Your task to perform on an android device: open app "HBO Max: Stream TV & Movies" (install if not already installed) Image 0: 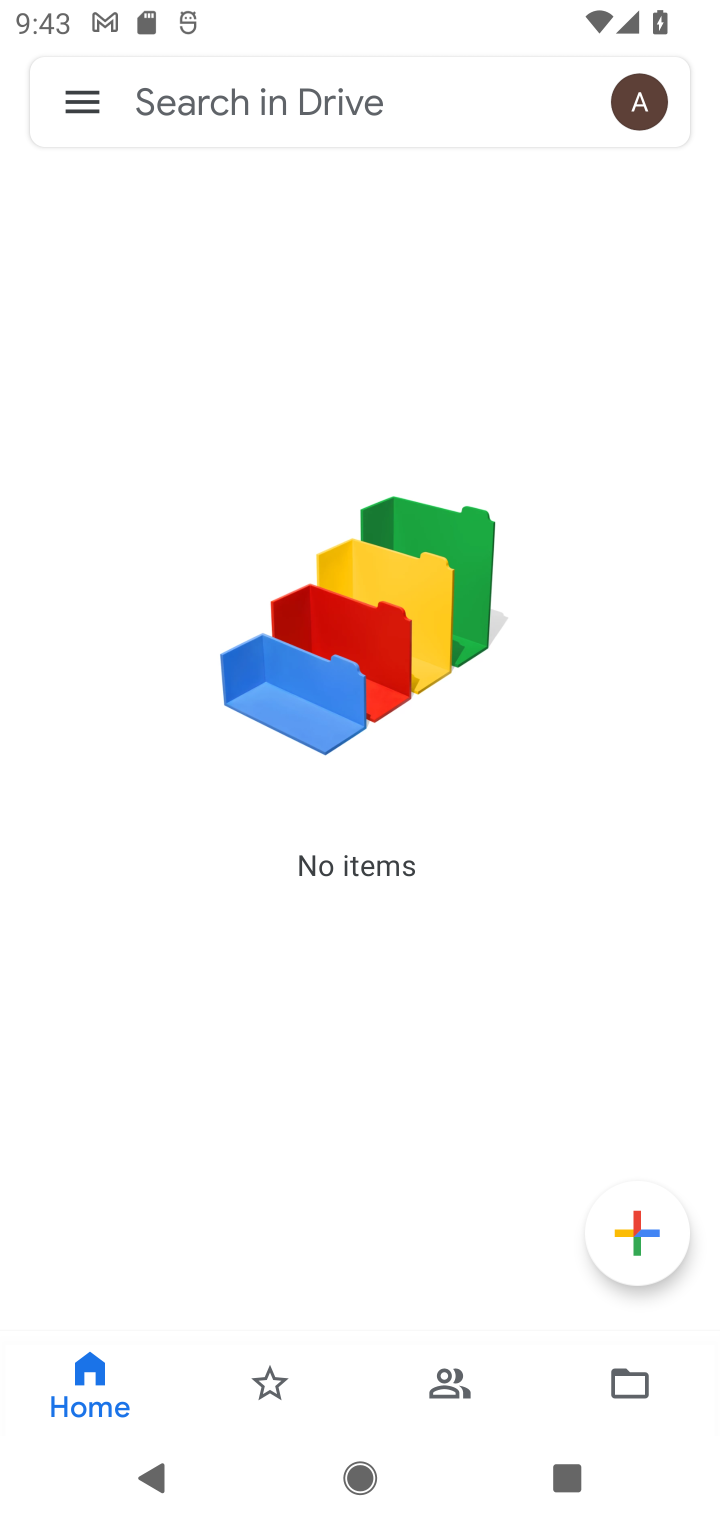
Step 0: press home button
Your task to perform on an android device: open app "HBO Max: Stream TV & Movies" (install if not already installed) Image 1: 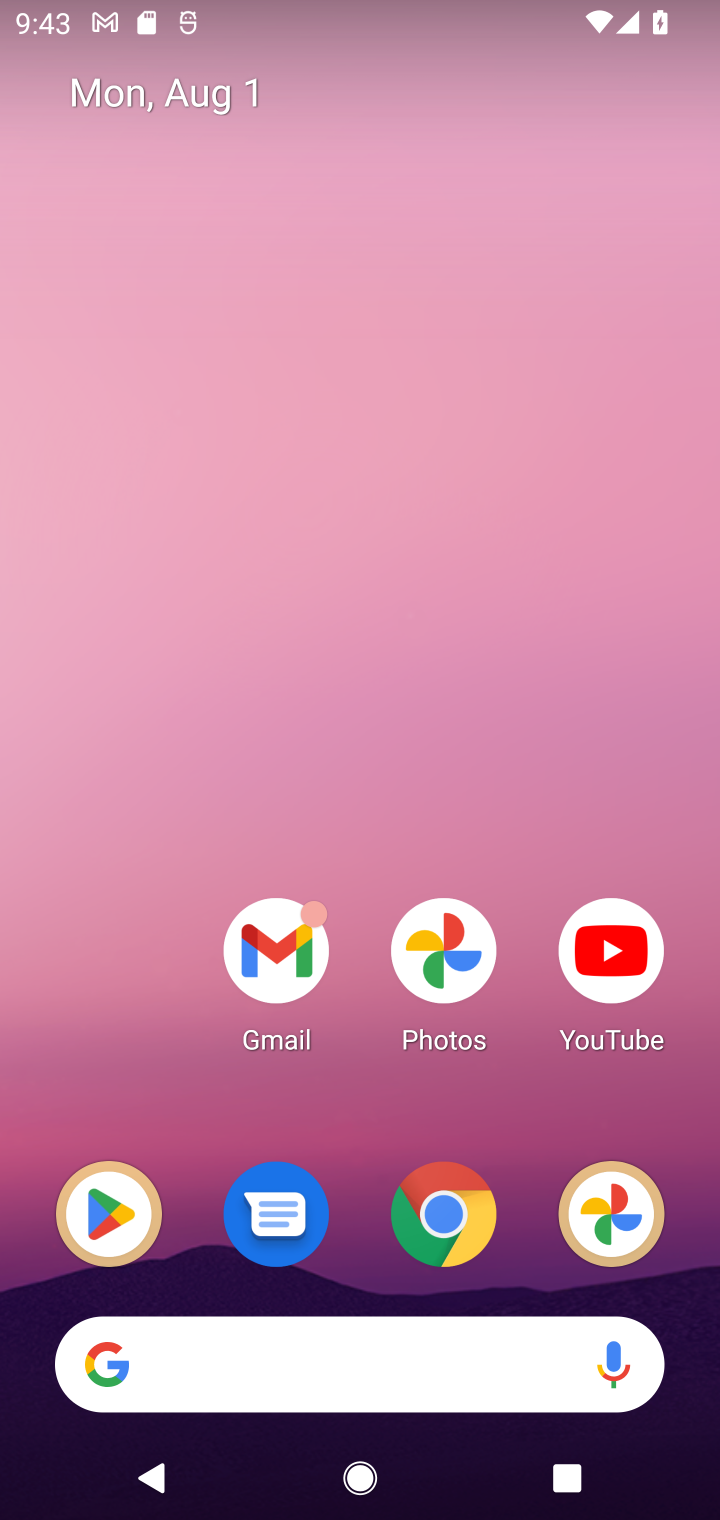
Step 1: click (114, 1207)
Your task to perform on an android device: open app "HBO Max: Stream TV & Movies" (install if not already installed) Image 2: 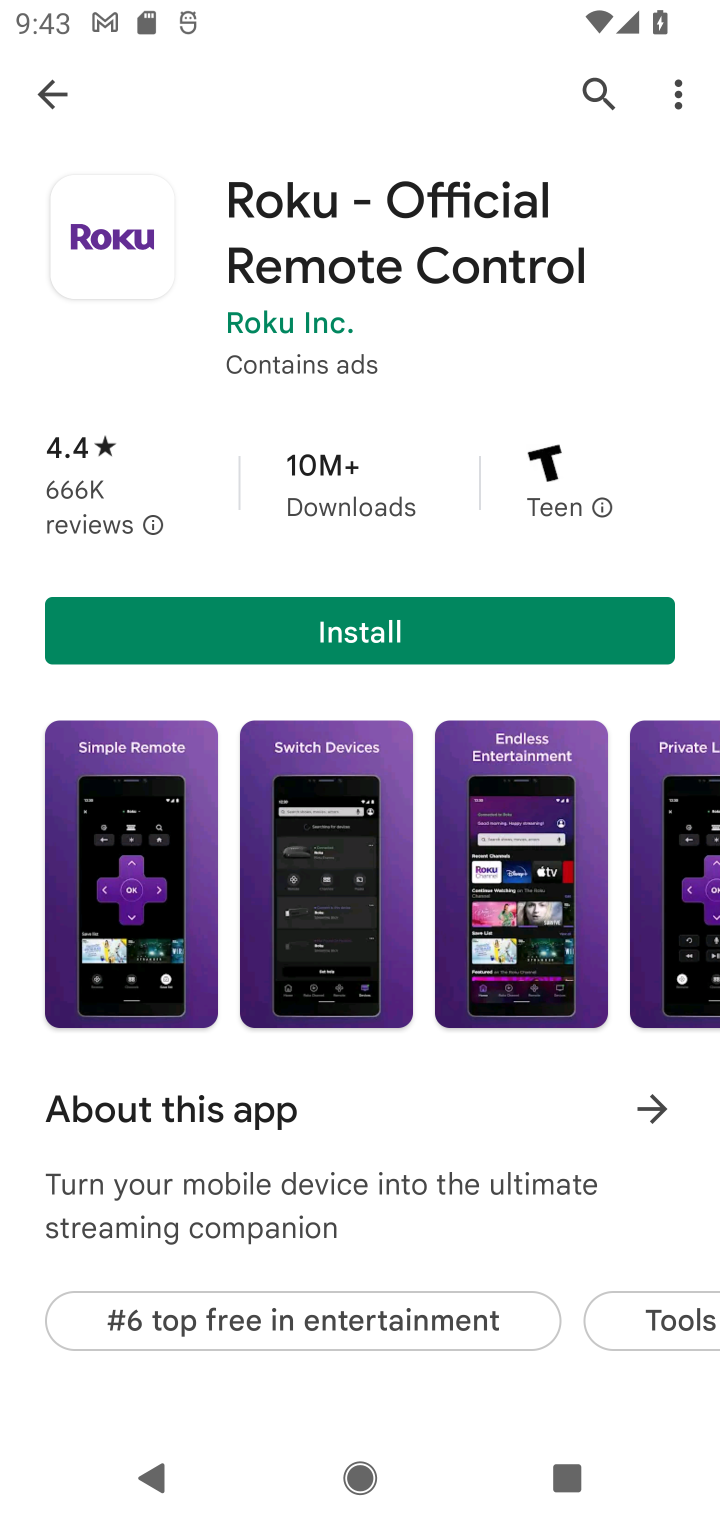
Step 2: click (588, 90)
Your task to perform on an android device: open app "HBO Max: Stream TV & Movies" (install if not already installed) Image 3: 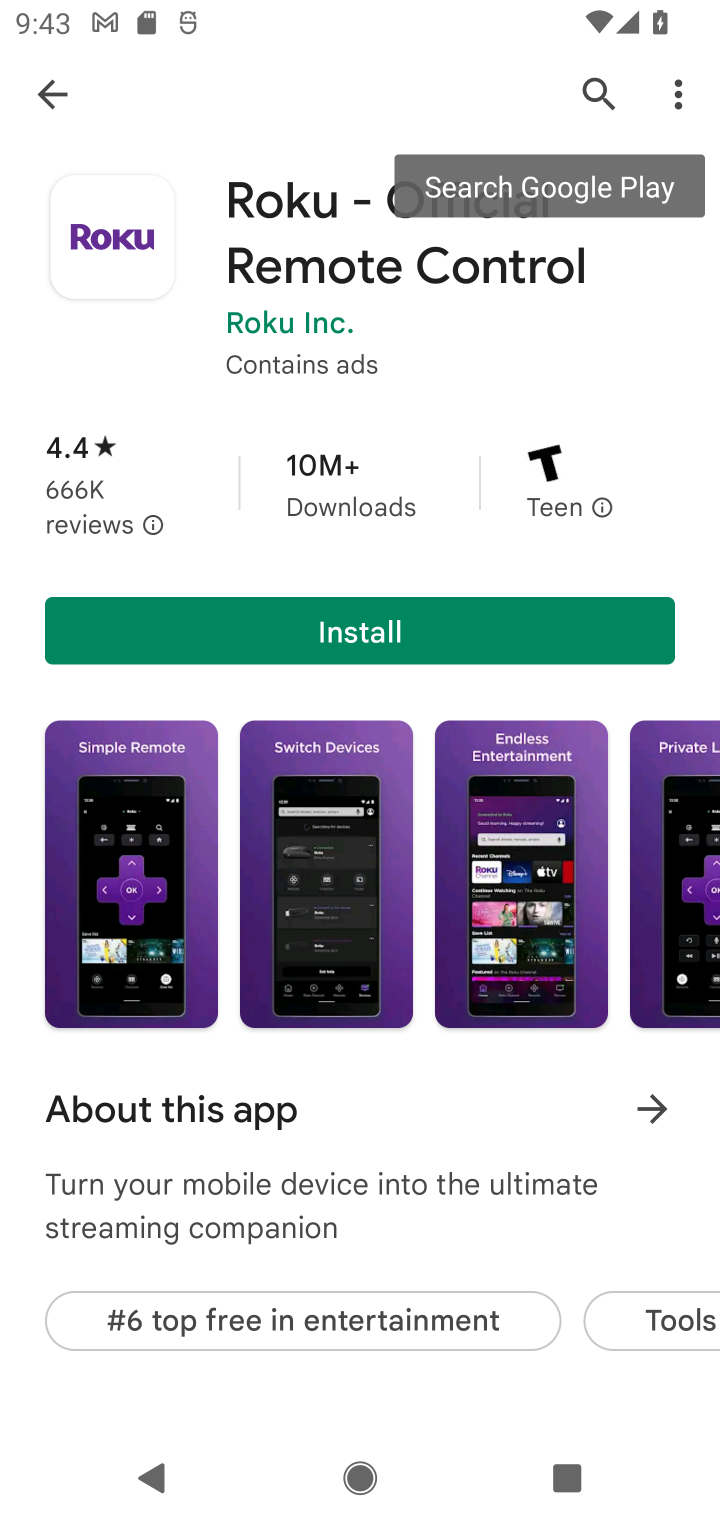
Step 3: click (588, 86)
Your task to perform on an android device: open app "HBO Max: Stream TV & Movies" (install if not already installed) Image 4: 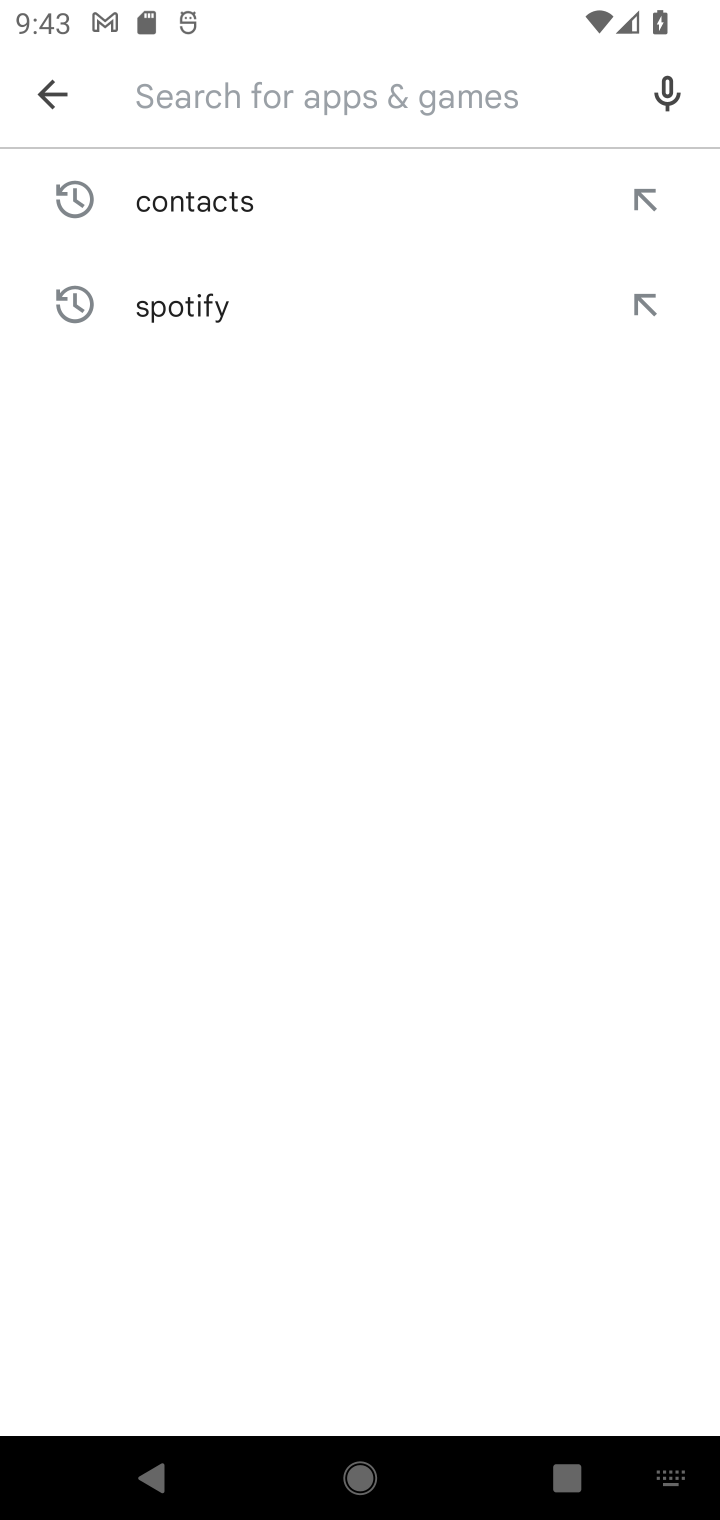
Step 4: type "HBO Max: Stream TV & Movies"
Your task to perform on an android device: open app "HBO Max: Stream TV & Movies" (install if not already installed) Image 5: 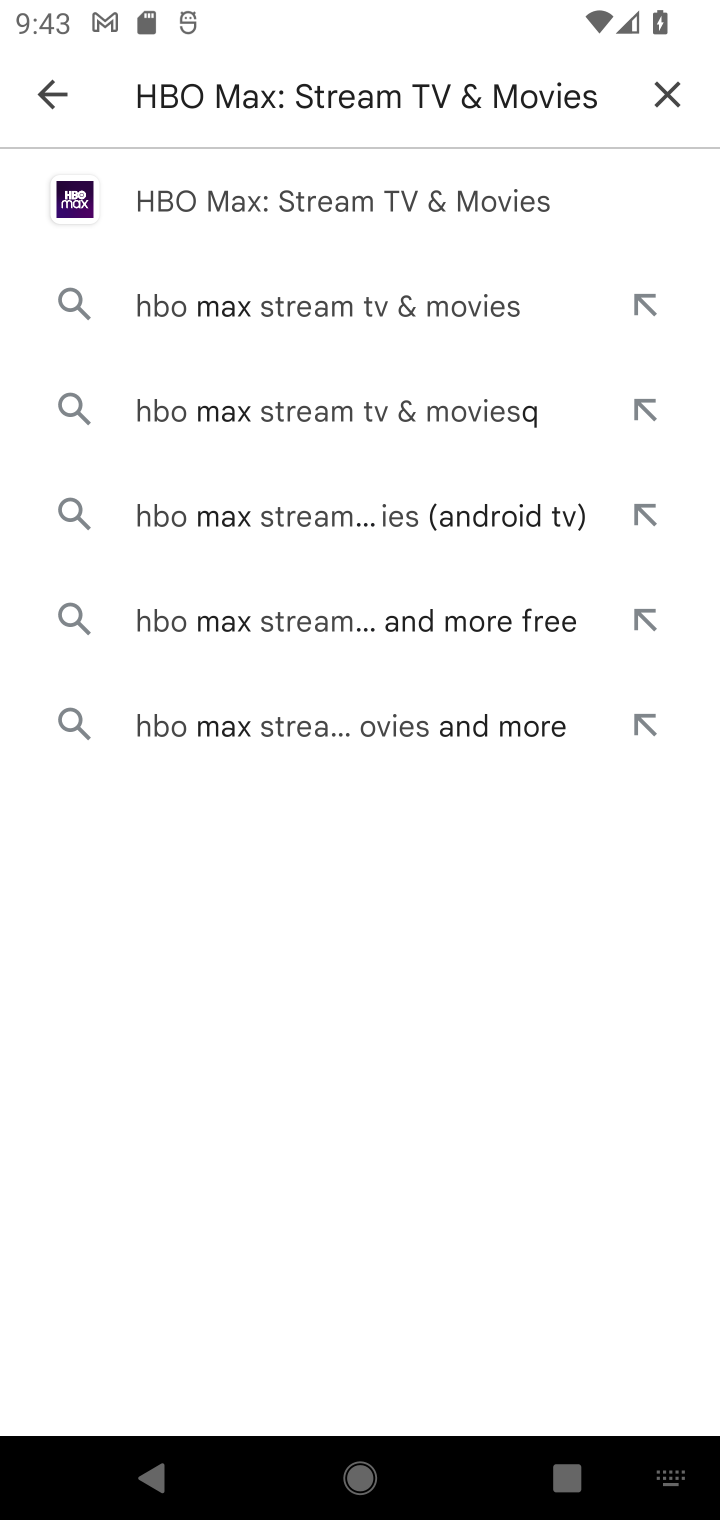
Step 5: click (245, 199)
Your task to perform on an android device: open app "HBO Max: Stream TV & Movies" (install if not already installed) Image 6: 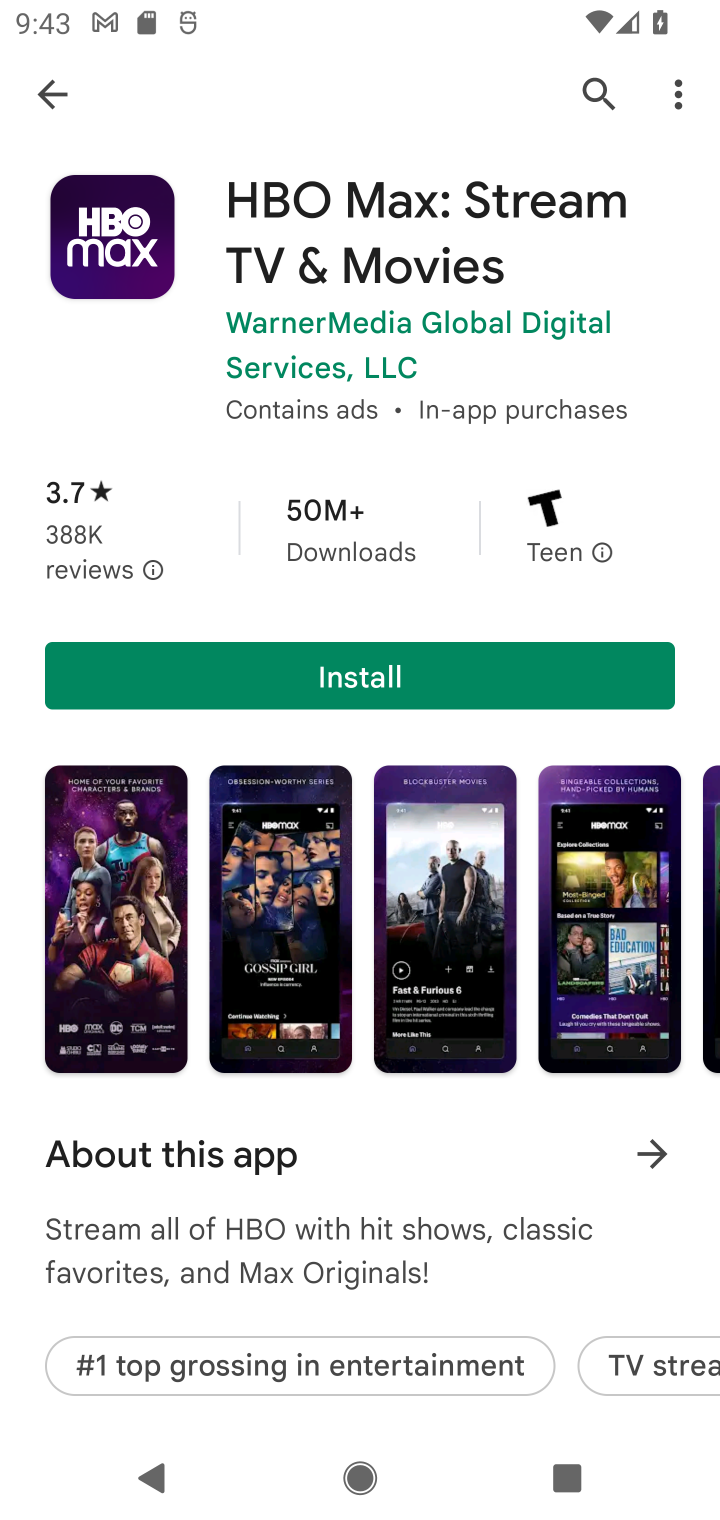
Step 6: click (379, 676)
Your task to perform on an android device: open app "HBO Max: Stream TV & Movies" (install if not already installed) Image 7: 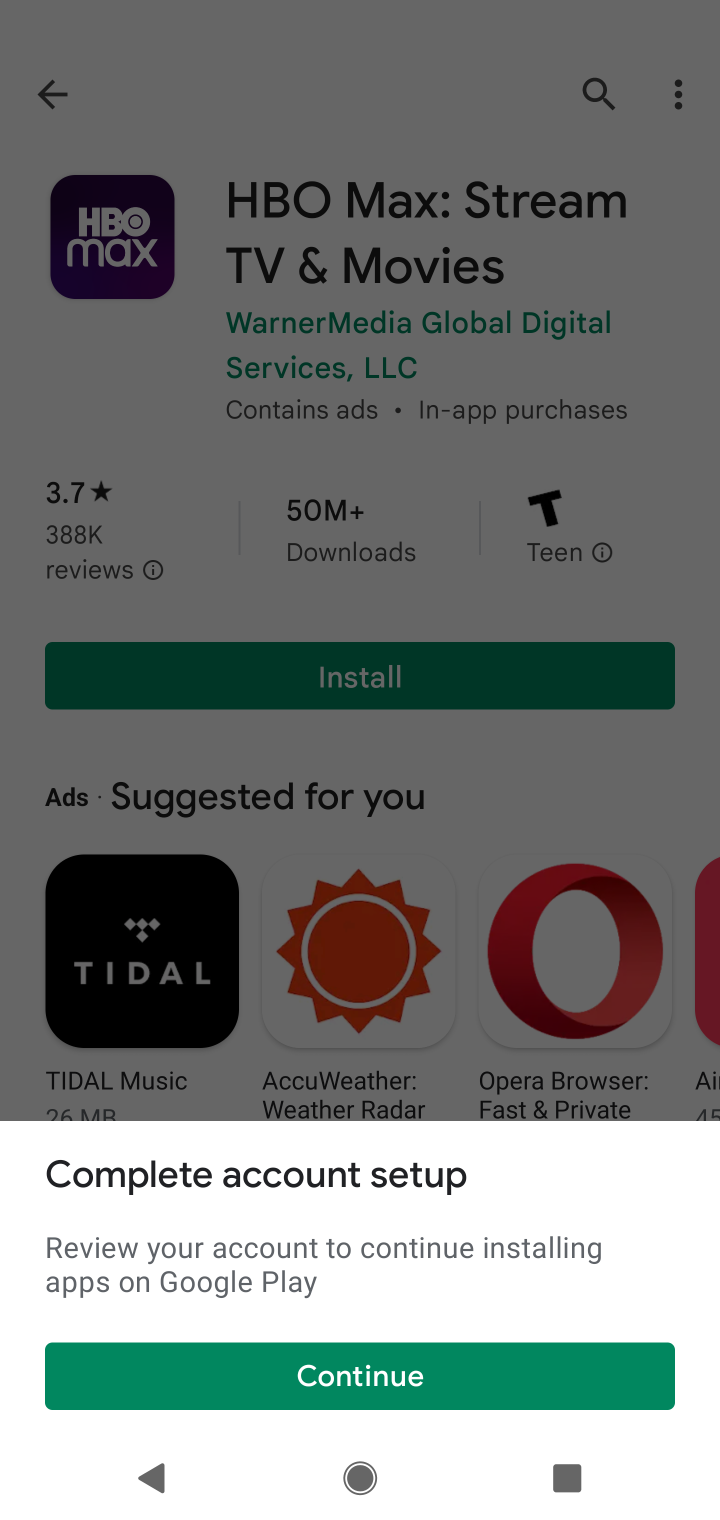
Step 7: click (435, 1360)
Your task to perform on an android device: open app "HBO Max: Stream TV & Movies" (install if not already installed) Image 8: 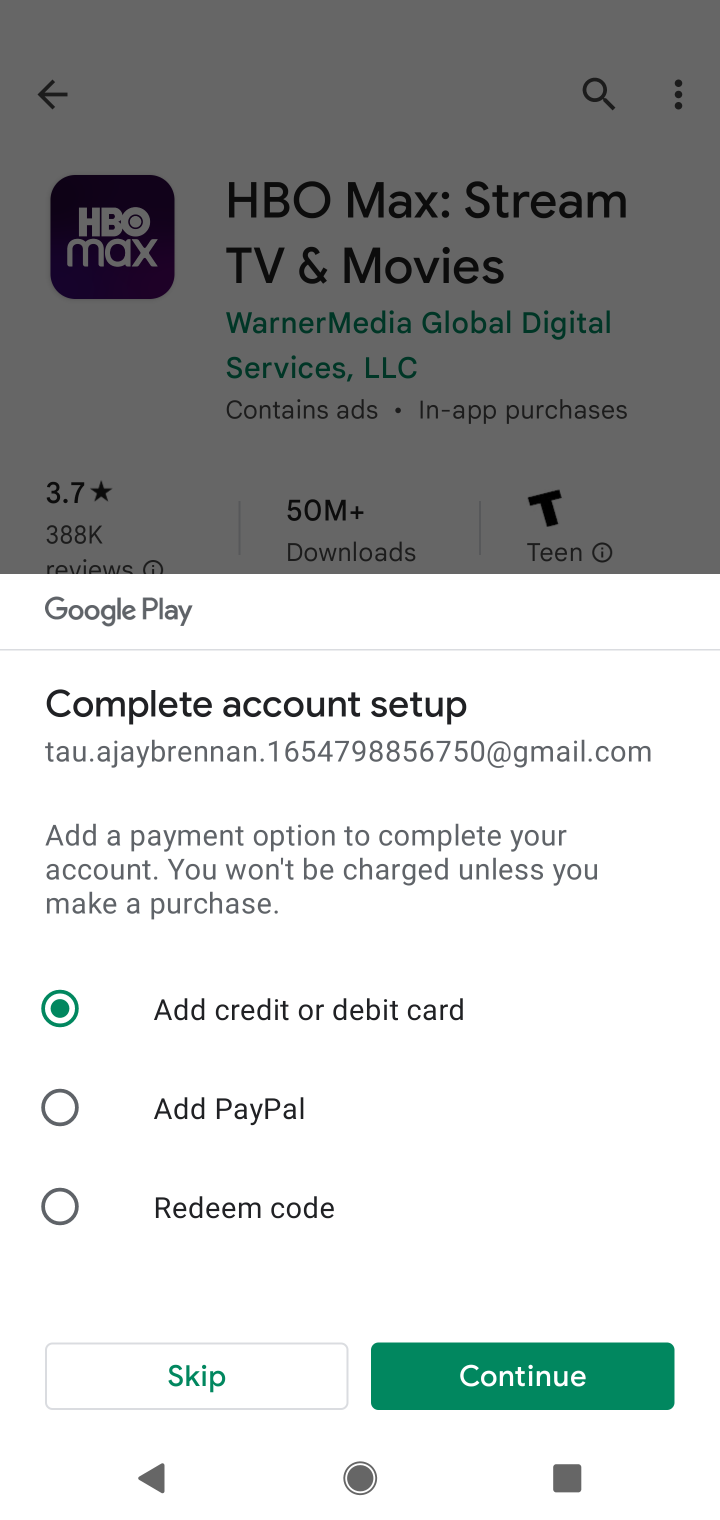
Step 8: click (243, 1381)
Your task to perform on an android device: open app "HBO Max: Stream TV & Movies" (install if not already installed) Image 9: 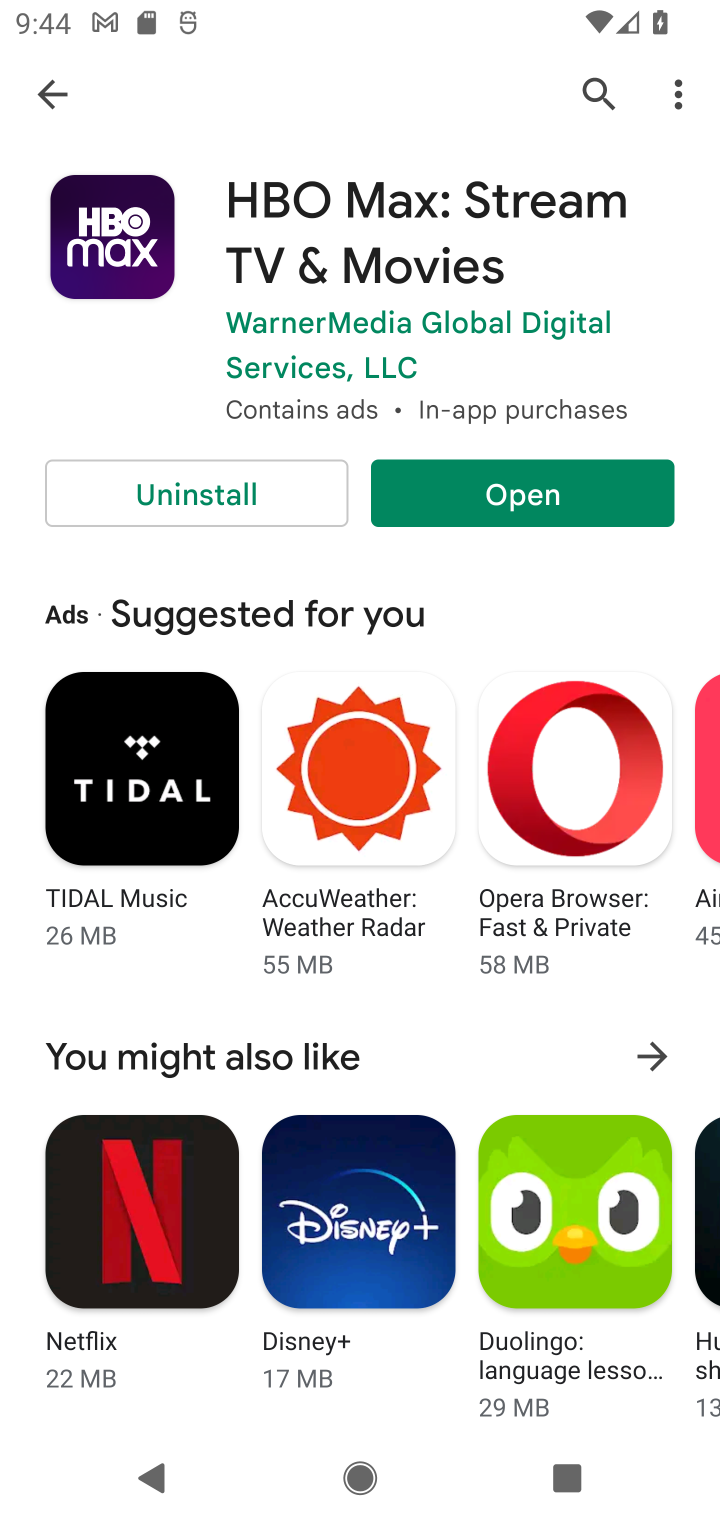
Step 9: click (589, 516)
Your task to perform on an android device: open app "HBO Max: Stream TV & Movies" (install if not already installed) Image 10: 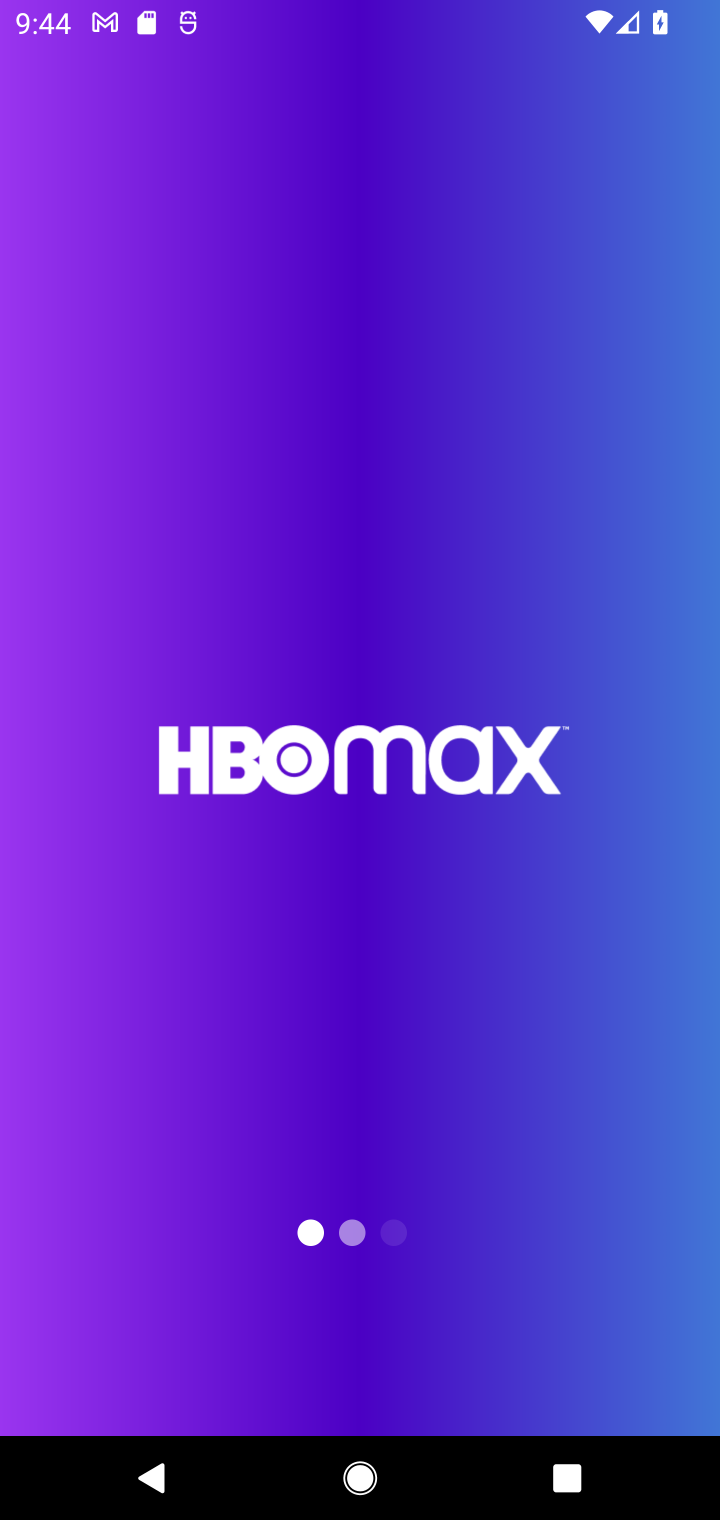
Step 10: task complete